Your task to perform on an android device: turn notification dots off Image 0: 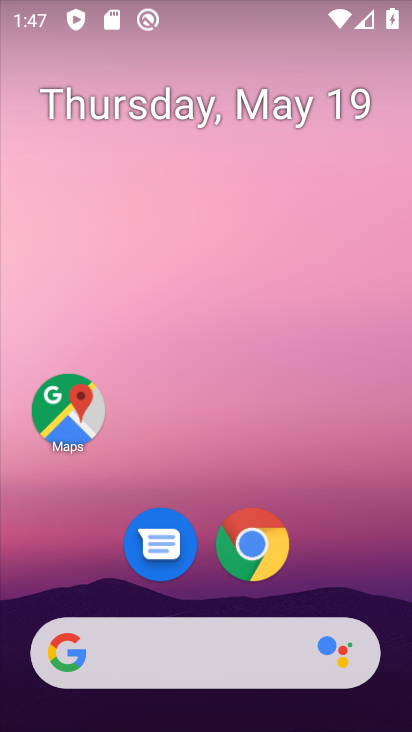
Step 0: press home button
Your task to perform on an android device: turn notification dots off Image 1: 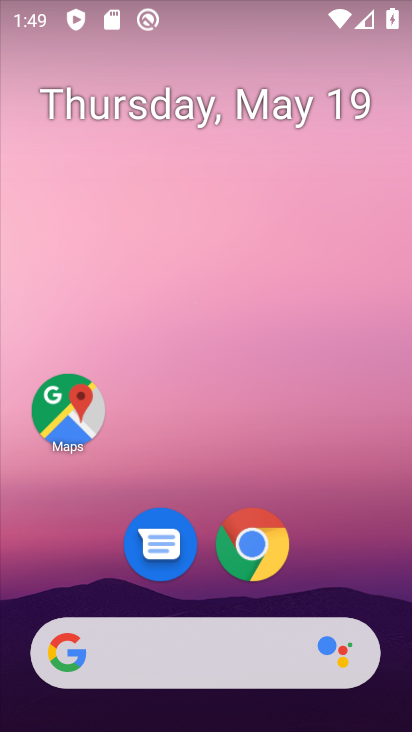
Step 1: drag from (225, 702) to (159, 256)
Your task to perform on an android device: turn notification dots off Image 2: 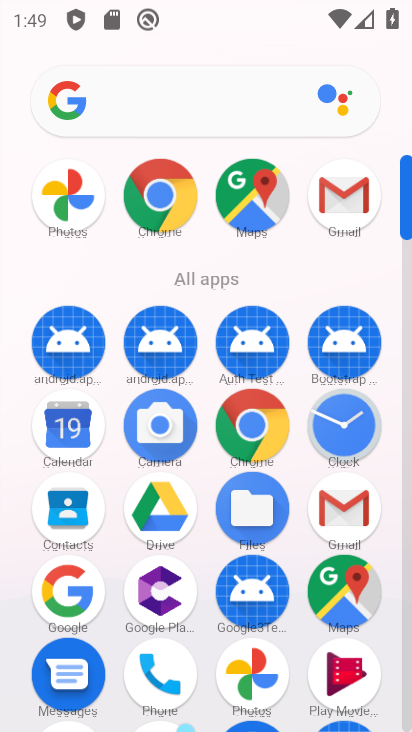
Step 2: drag from (200, 554) to (192, 246)
Your task to perform on an android device: turn notification dots off Image 3: 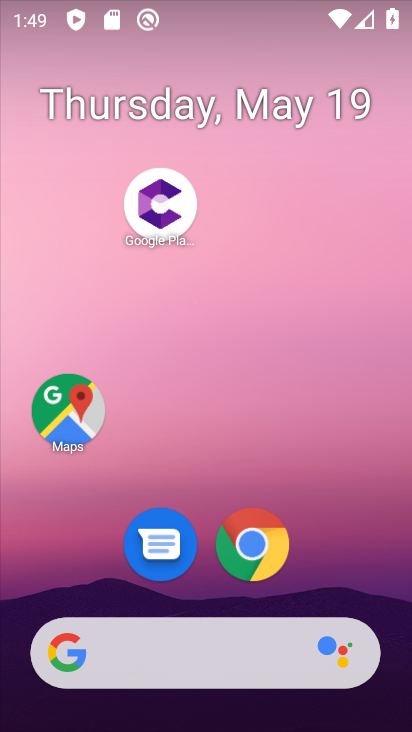
Step 3: drag from (239, 707) to (215, 194)
Your task to perform on an android device: turn notification dots off Image 4: 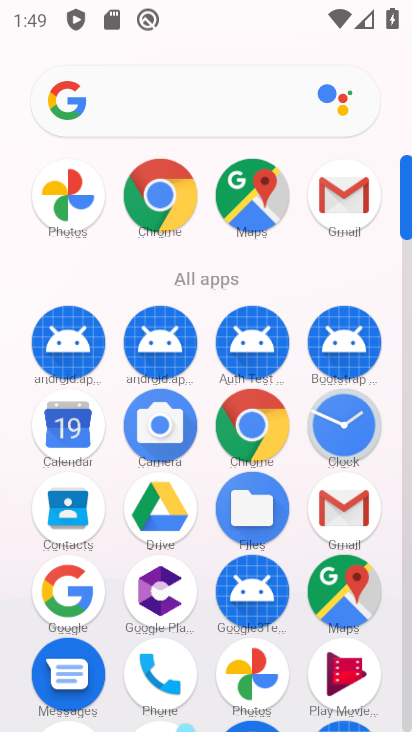
Step 4: drag from (117, 560) to (125, 269)
Your task to perform on an android device: turn notification dots off Image 5: 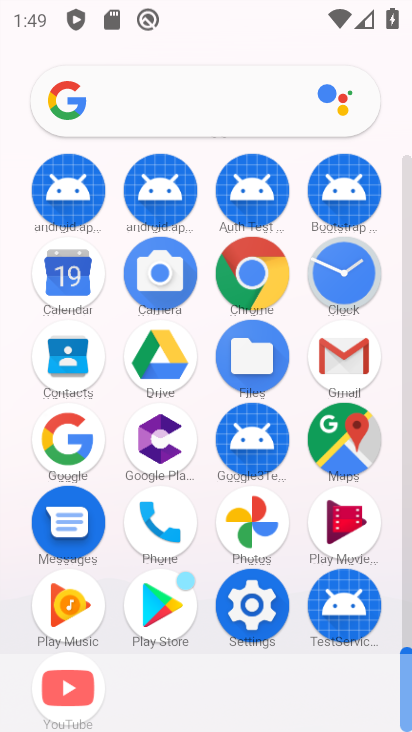
Step 5: click (245, 596)
Your task to perform on an android device: turn notification dots off Image 6: 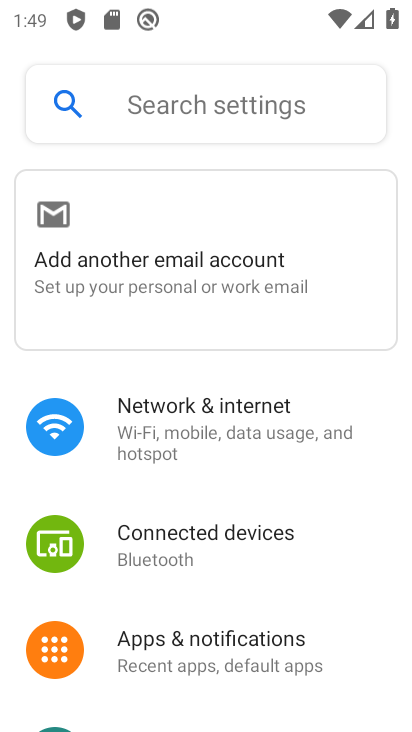
Step 6: click (209, 114)
Your task to perform on an android device: turn notification dots off Image 7: 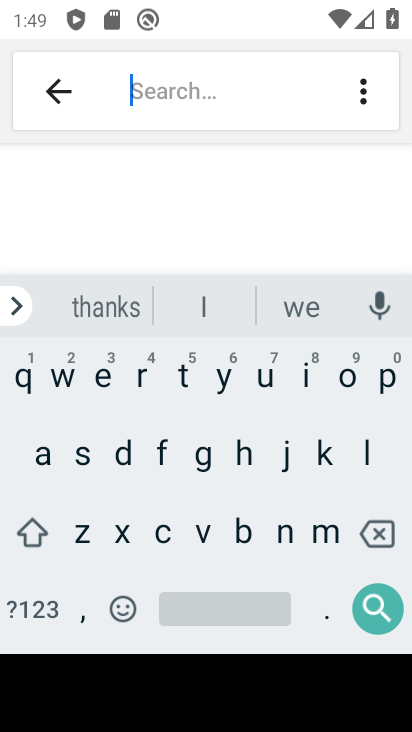
Step 7: click (125, 463)
Your task to perform on an android device: turn notification dots off Image 8: 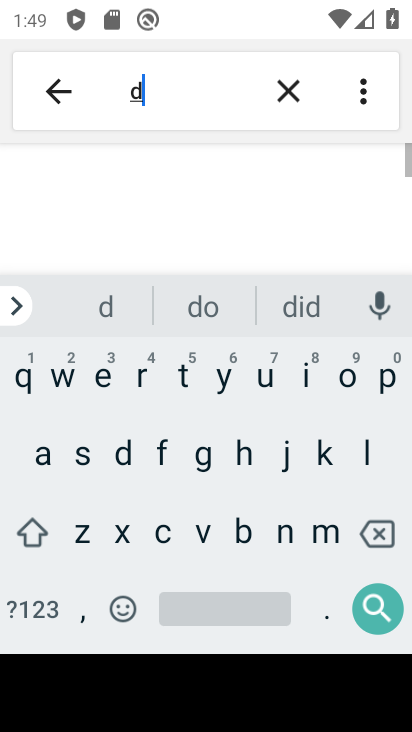
Step 8: click (345, 384)
Your task to perform on an android device: turn notification dots off Image 9: 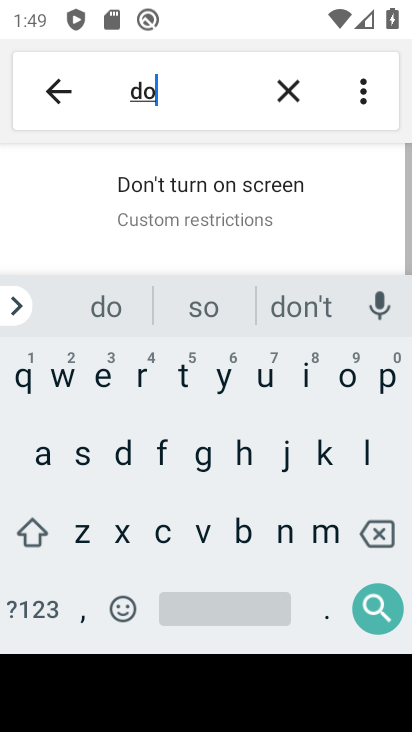
Step 9: click (185, 379)
Your task to perform on an android device: turn notification dots off Image 10: 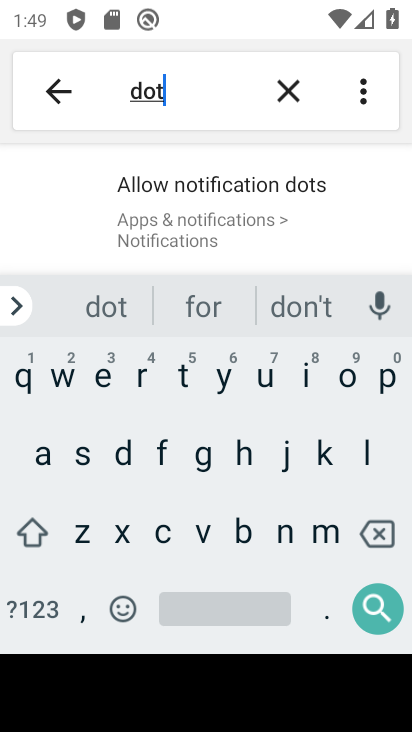
Step 10: click (258, 192)
Your task to perform on an android device: turn notification dots off Image 11: 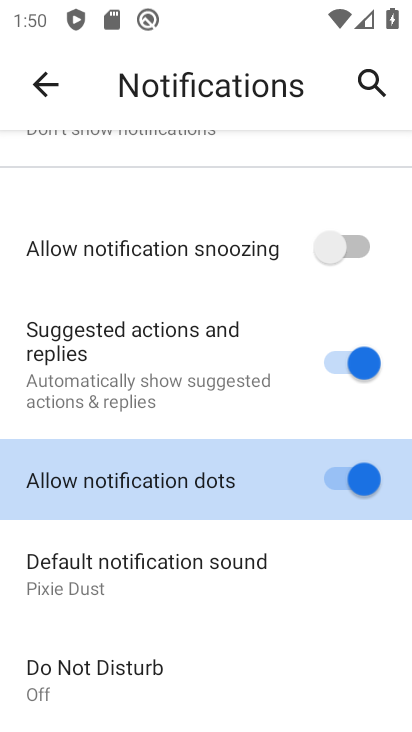
Step 11: click (355, 483)
Your task to perform on an android device: turn notification dots off Image 12: 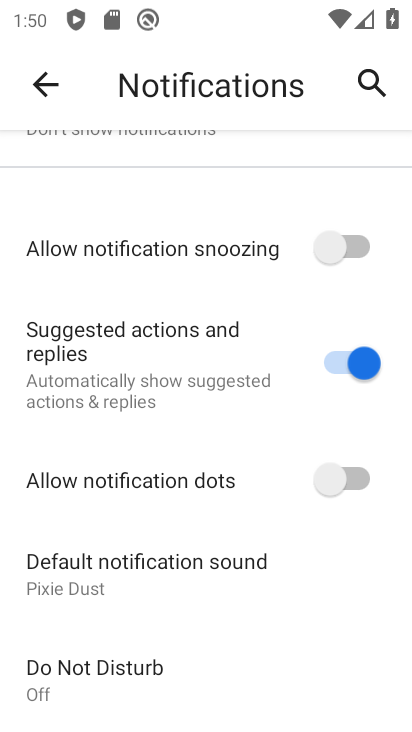
Step 12: task complete